Your task to perform on an android device: turn off airplane mode Image 0: 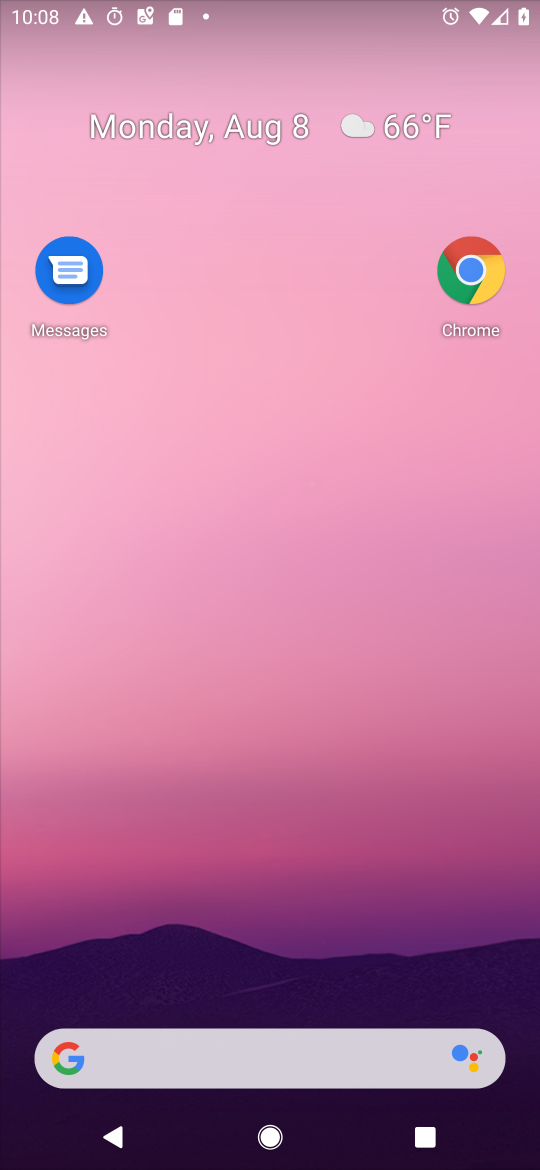
Step 0: click (415, 3)
Your task to perform on an android device: turn off airplane mode Image 1: 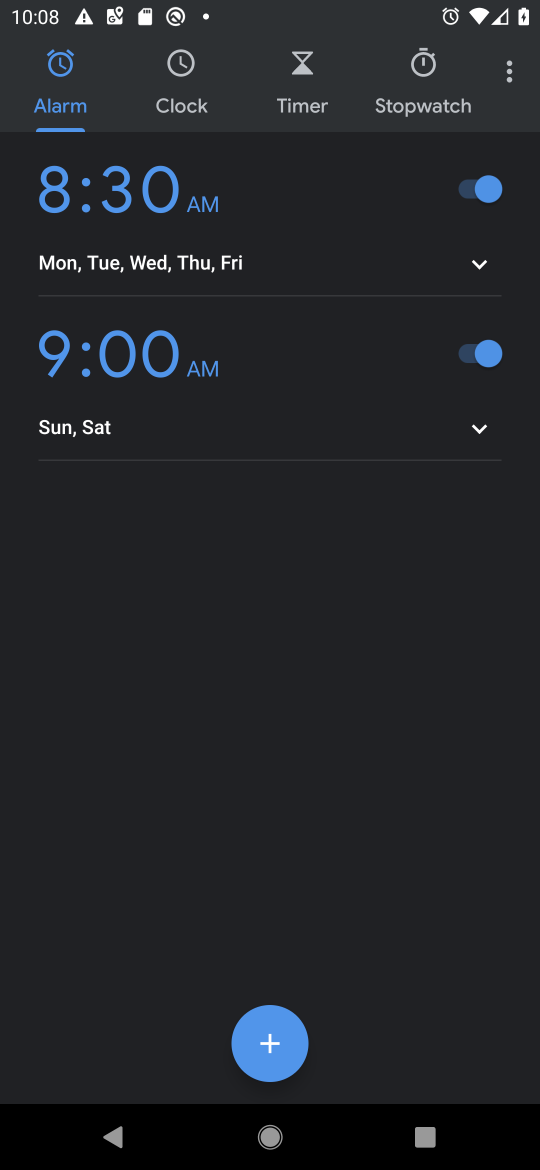
Step 1: press home button
Your task to perform on an android device: turn off airplane mode Image 2: 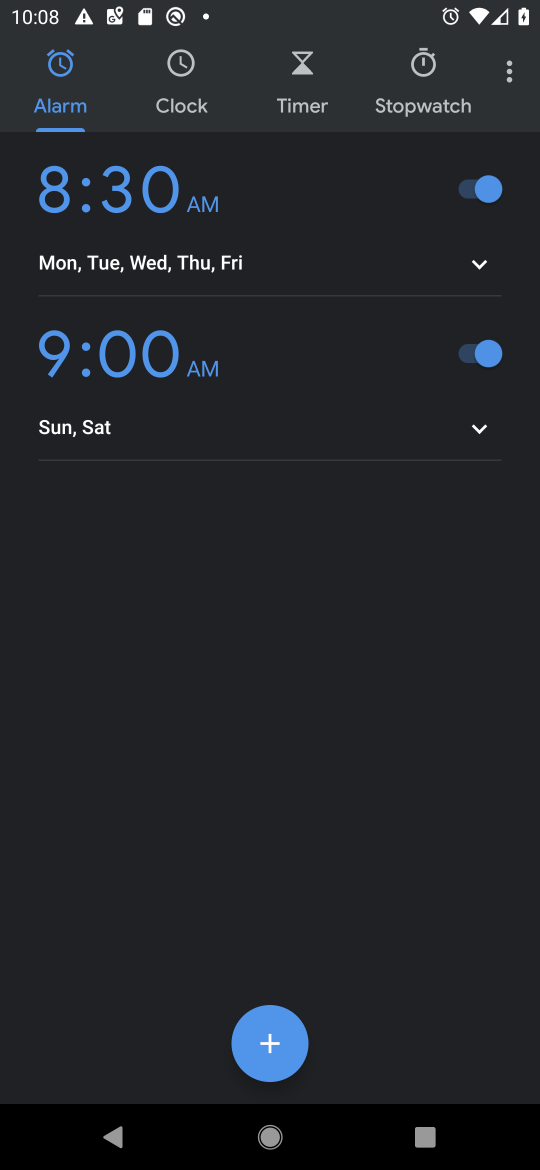
Step 2: press home button
Your task to perform on an android device: turn off airplane mode Image 3: 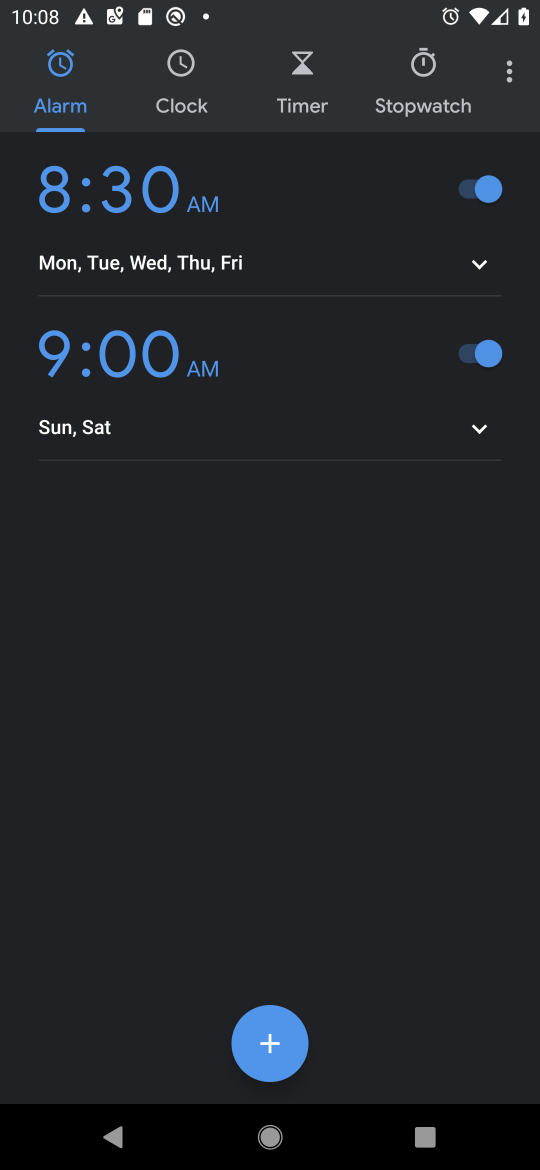
Step 3: click (358, 120)
Your task to perform on an android device: turn off airplane mode Image 4: 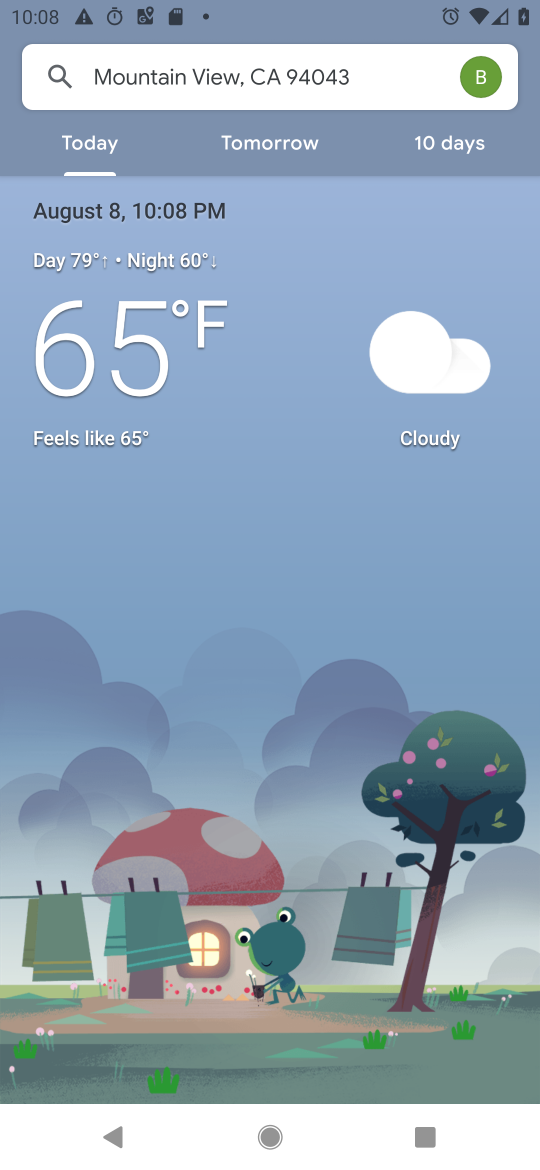
Step 4: press home button
Your task to perform on an android device: turn off airplane mode Image 5: 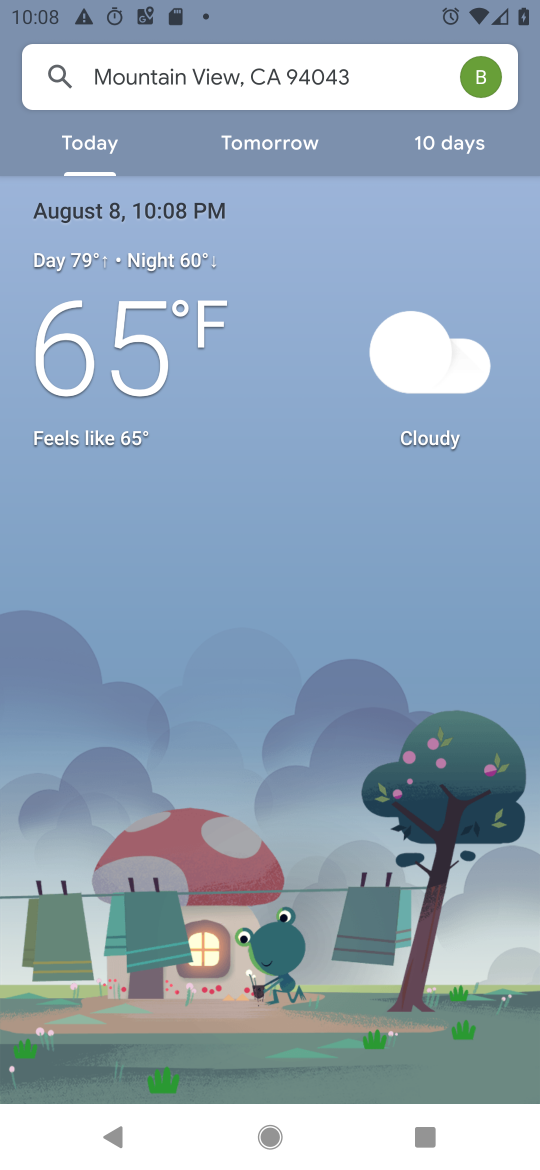
Step 5: press home button
Your task to perform on an android device: turn off airplane mode Image 6: 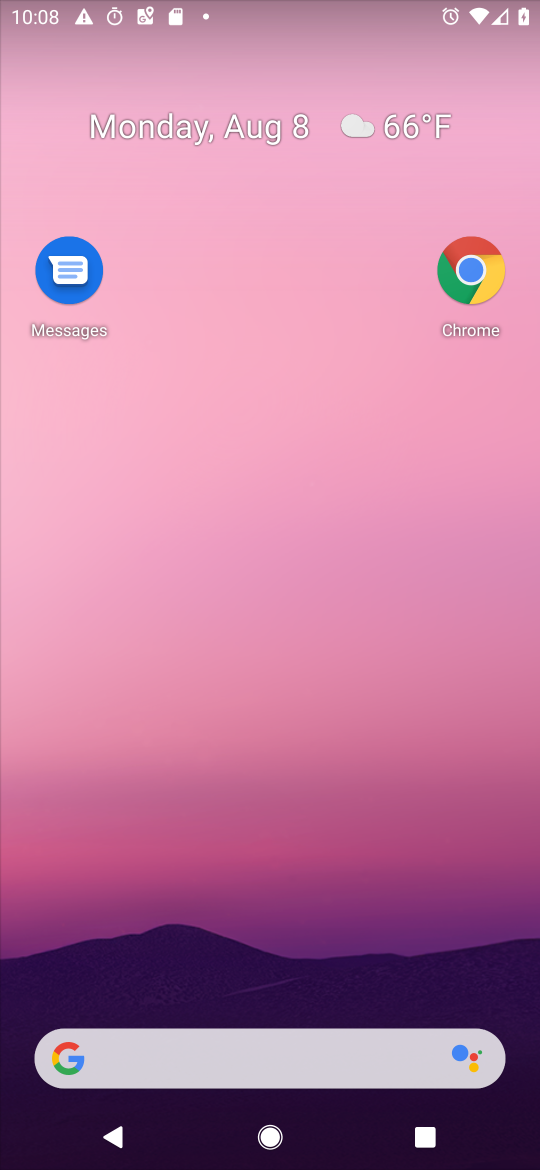
Step 6: drag from (332, 868) to (302, 145)
Your task to perform on an android device: turn off airplane mode Image 7: 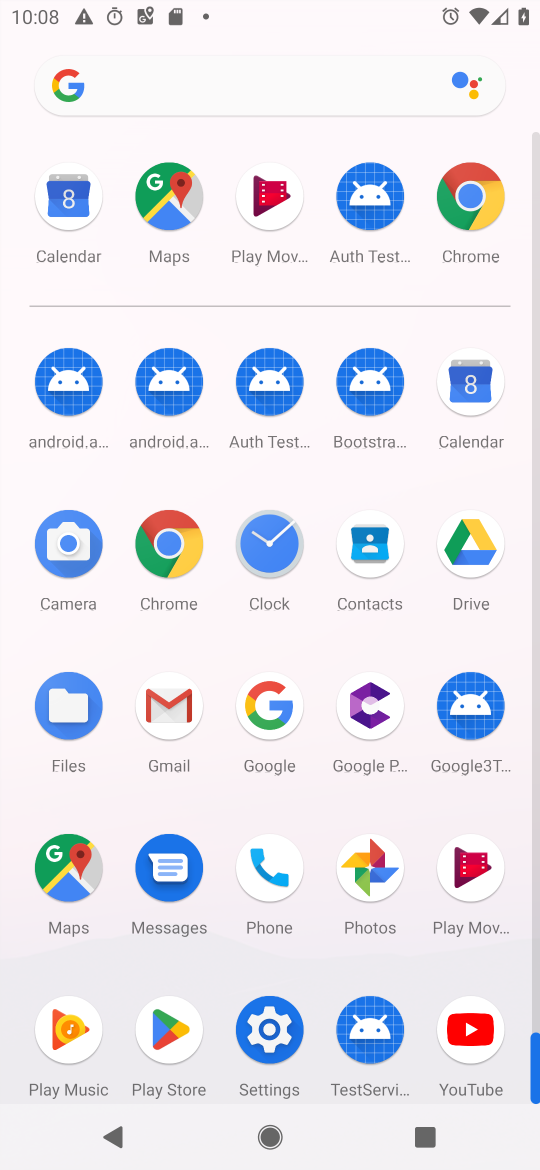
Step 7: click (265, 1016)
Your task to perform on an android device: turn off airplane mode Image 8: 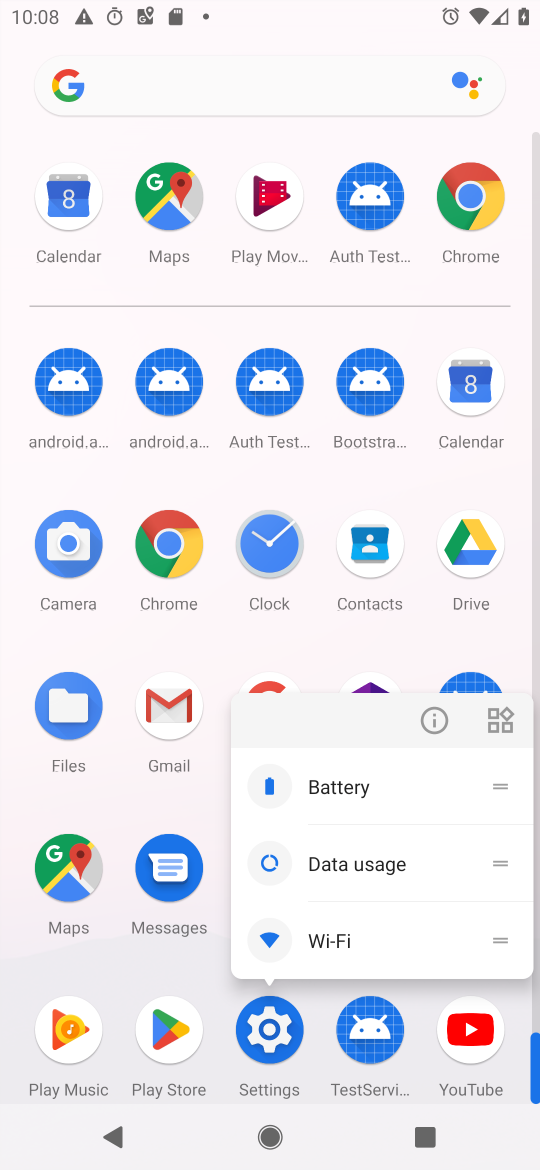
Step 8: click (425, 718)
Your task to perform on an android device: turn off airplane mode Image 9: 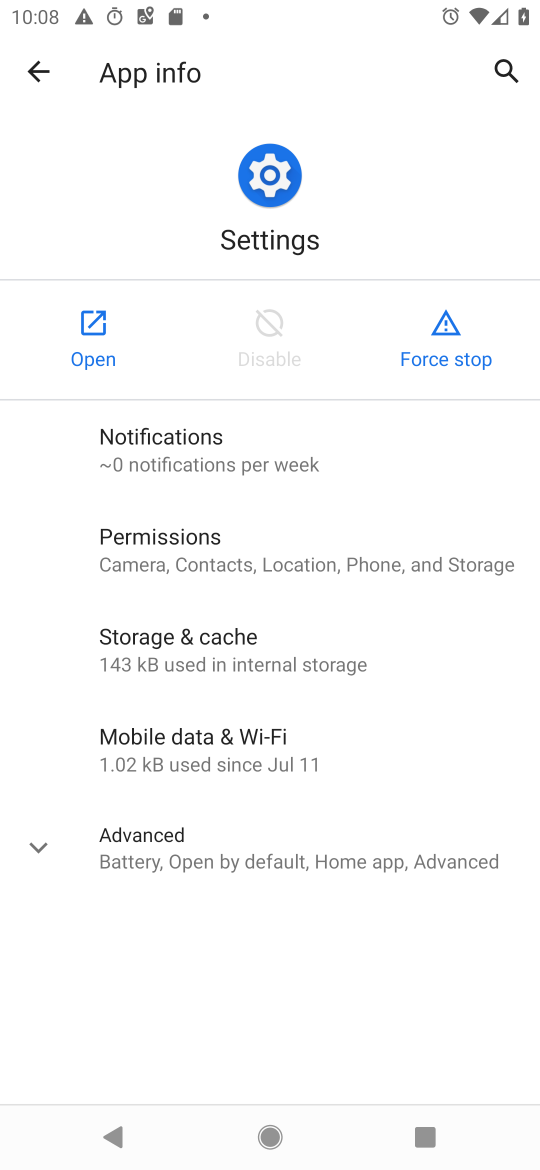
Step 9: click (83, 346)
Your task to perform on an android device: turn off airplane mode Image 10: 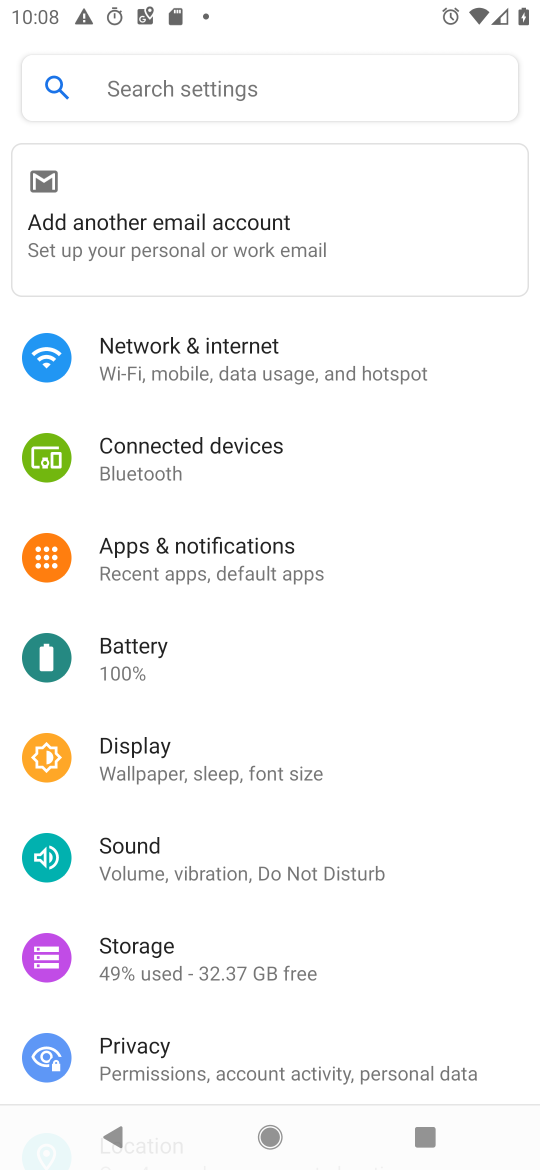
Step 10: drag from (254, 761) to (313, 5)
Your task to perform on an android device: turn off airplane mode Image 11: 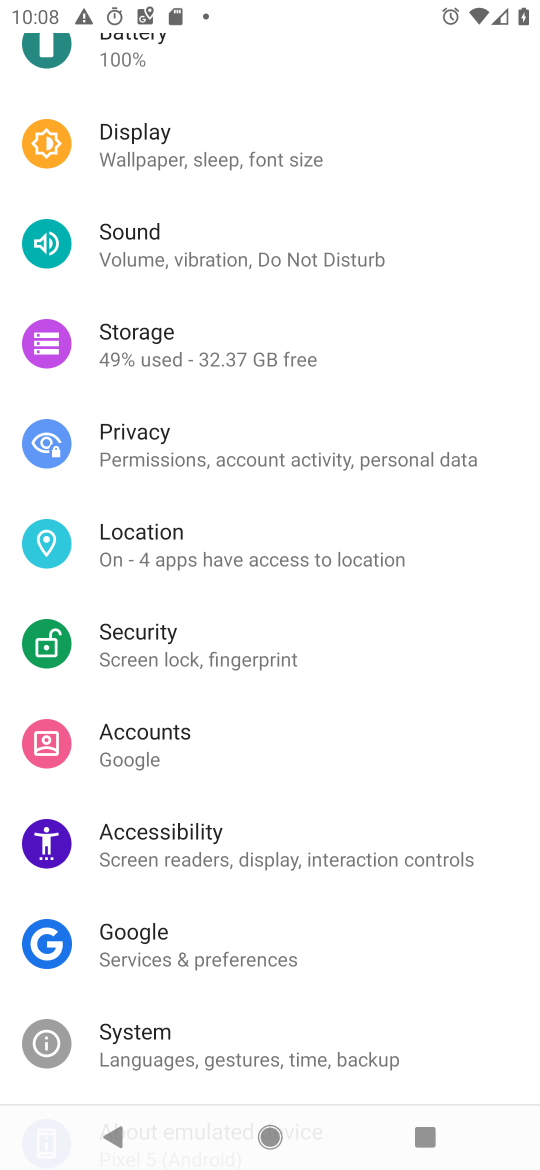
Step 11: drag from (209, 233) to (249, 890)
Your task to perform on an android device: turn off airplane mode Image 12: 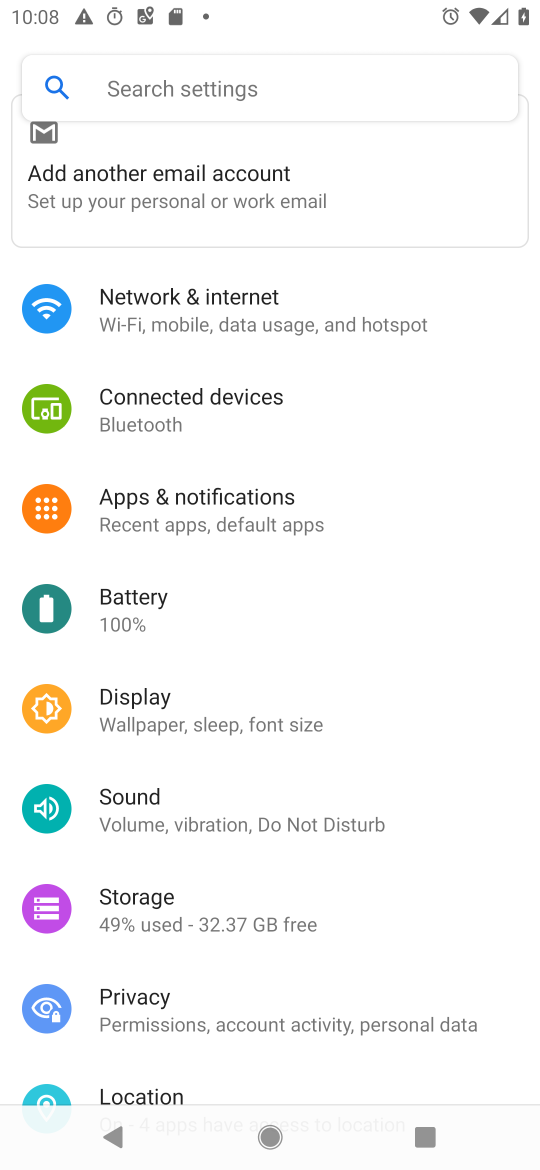
Step 12: click (223, 327)
Your task to perform on an android device: turn off airplane mode Image 13: 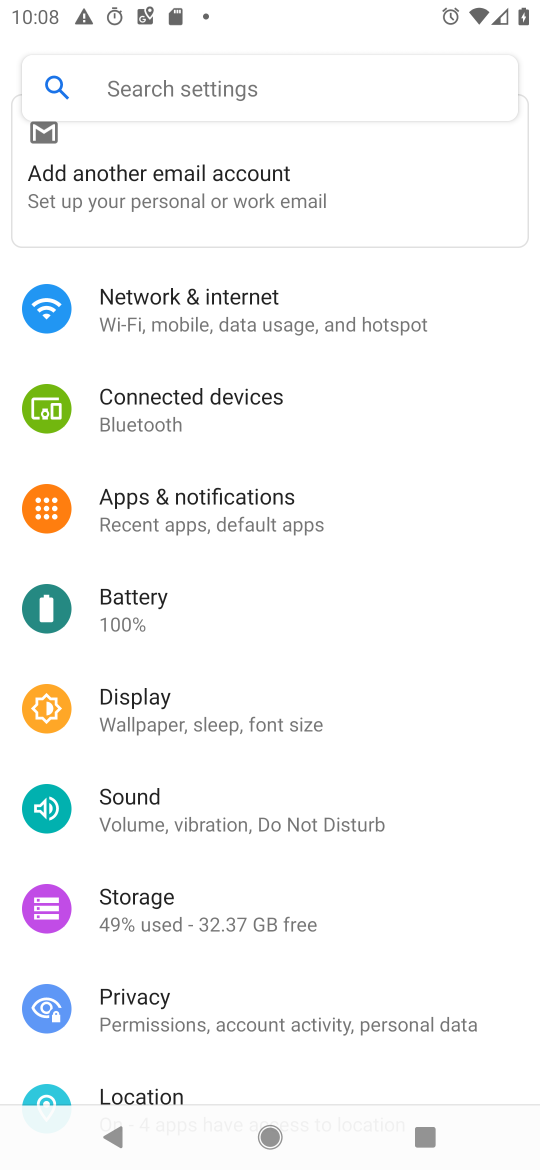
Step 13: click (223, 327)
Your task to perform on an android device: turn off airplane mode Image 14: 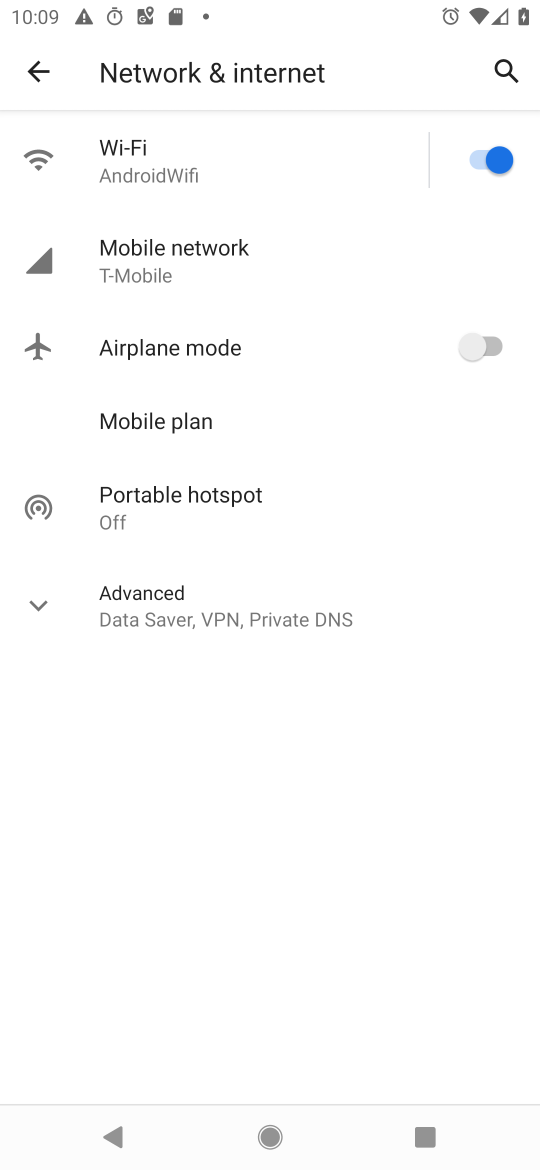
Step 14: task complete